Your task to perform on an android device: Open CNN.com Image 0: 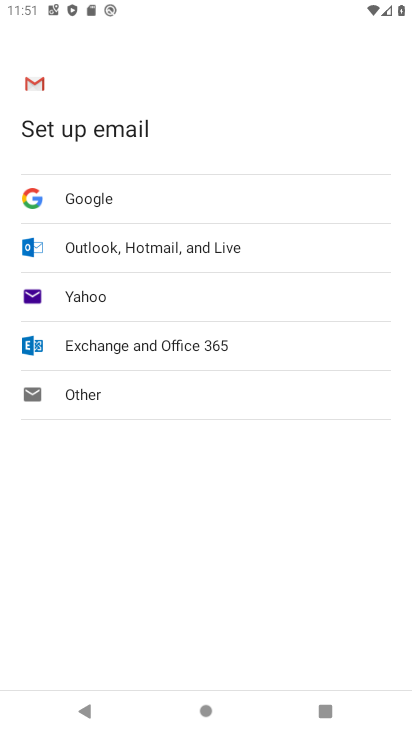
Step 0: press home button
Your task to perform on an android device: Open CNN.com Image 1: 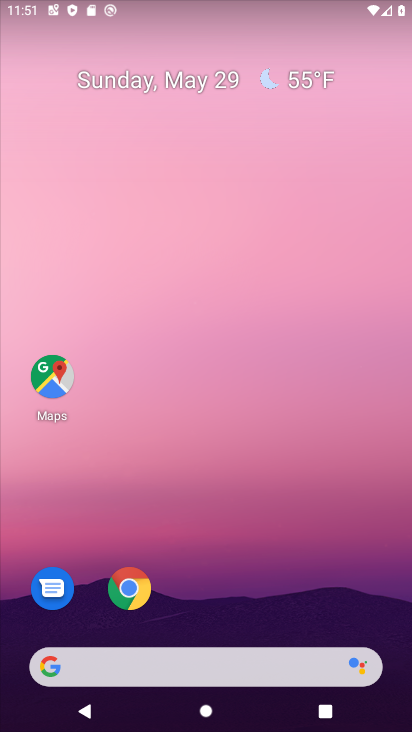
Step 1: drag from (292, 562) to (312, 0)
Your task to perform on an android device: Open CNN.com Image 2: 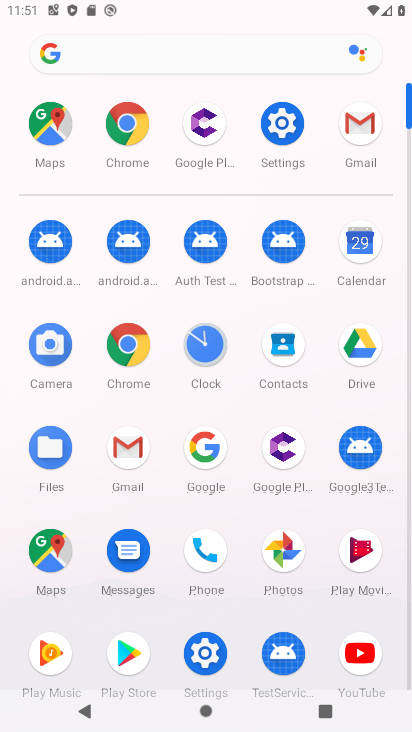
Step 2: click (111, 128)
Your task to perform on an android device: Open CNN.com Image 3: 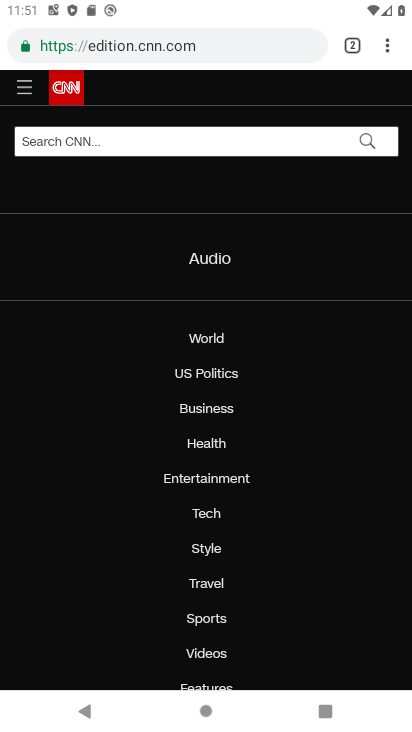
Step 3: task complete